Your task to perform on an android device: add a label to a message in the gmail app Image 0: 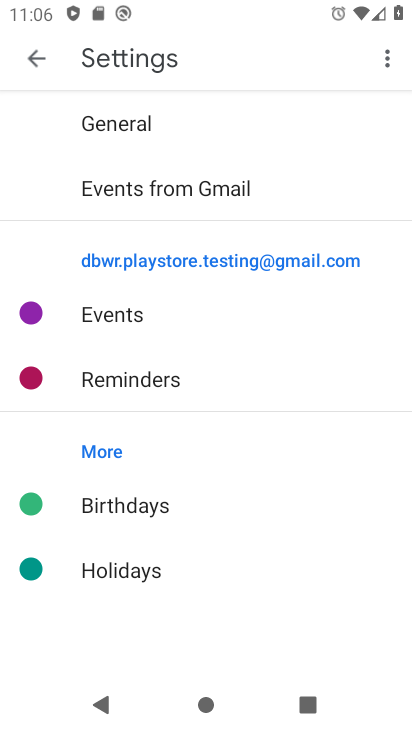
Step 0: press back button
Your task to perform on an android device: add a label to a message in the gmail app Image 1: 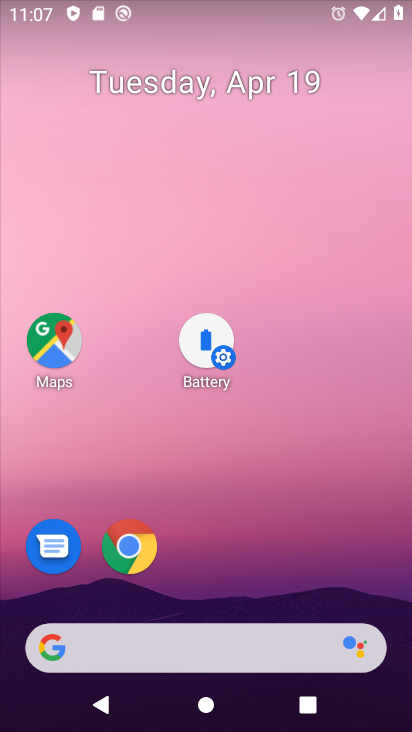
Step 1: drag from (173, 530) to (270, 58)
Your task to perform on an android device: add a label to a message in the gmail app Image 2: 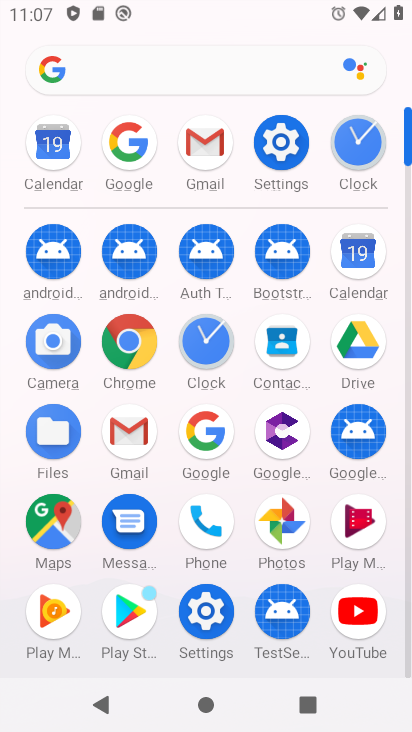
Step 2: click (220, 126)
Your task to perform on an android device: add a label to a message in the gmail app Image 3: 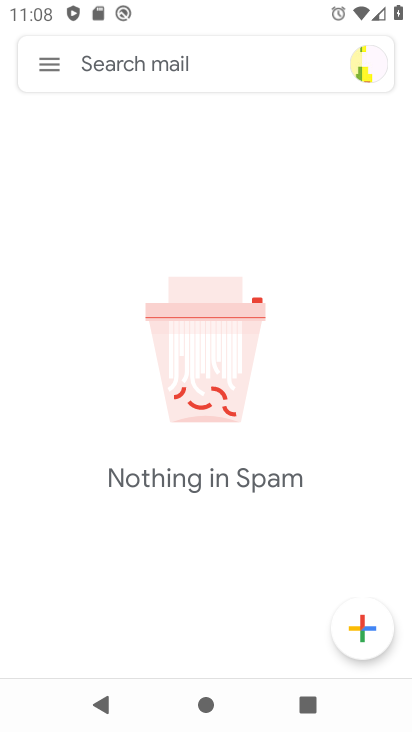
Step 3: click (50, 57)
Your task to perform on an android device: add a label to a message in the gmail app Image 4: 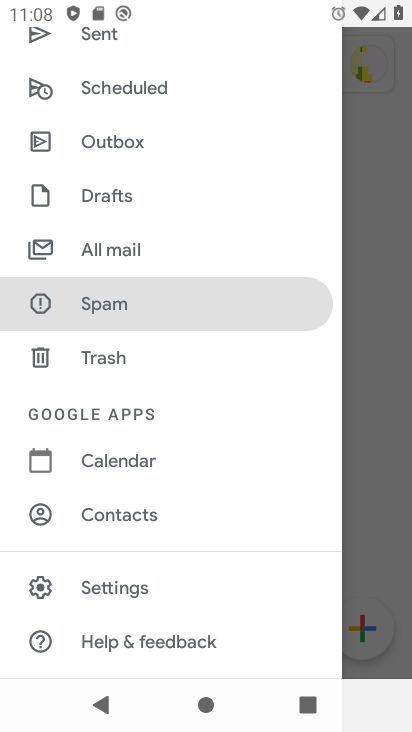
Step 4: click (129, 246)
Your task to perform on an android device: add a label to a message in the gmail app Image 5: 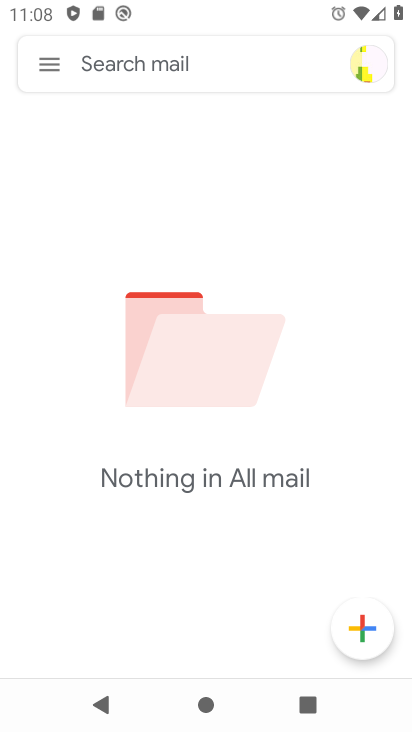
Step 5: task complete